Your task to perform on an android device: turn off javascript in the chrome app Image 0: 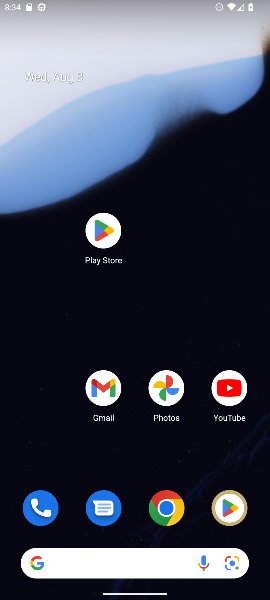
Step 0: drag from (124, 541) to (107, 82)
Your task to perform on an android device: turn off javascript in the chrome app Image 1: 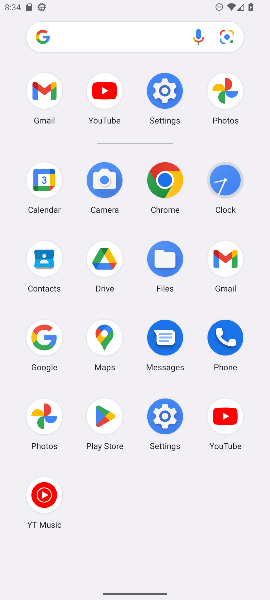
Step 1: click (169, 189)
Your task to perform on an android device: turn off javascript in the chrome app Image 2: 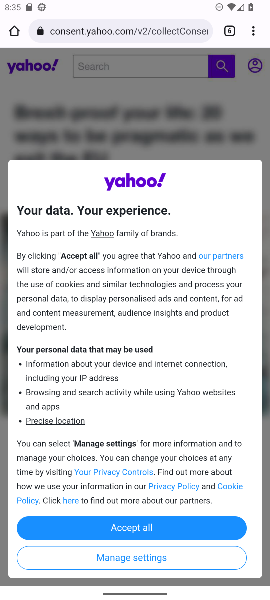
Step 2: press home button
Your task to perform on an android device: turn off javascript in the chrome app Image 3: 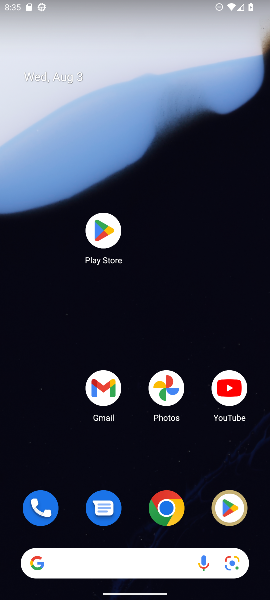
Step 3: drag from (128, 530) to (263, 393)
Your task to perform on an android device: turn off javascript in the chrome app Image 4: 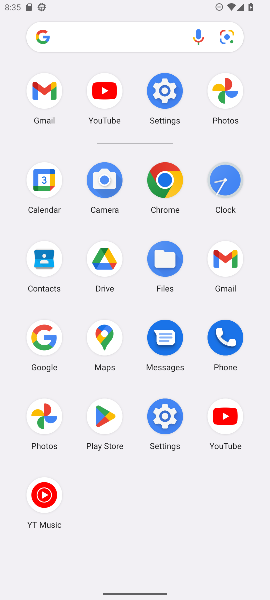
Step 4: click (151, 192)
Your task to perform on an android device: turn off javascript in the chrome app Image 5: 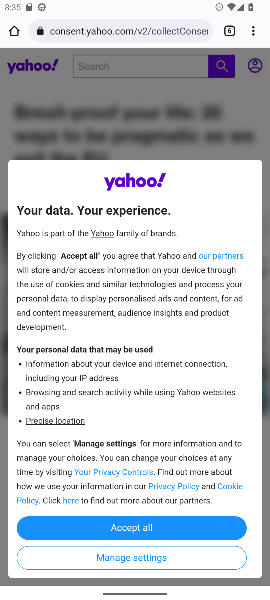
Step 5: drag from (250, 33) to (135, 386)
Your task to perform on an android device: turn off javascript in the chrome app Image 6: 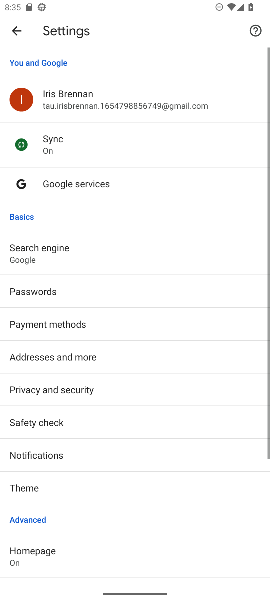
Step 6: drag from (87, 503) to (94, 199)
Your task to perform on an android device: turn off javascript in the chrome app Image 7: 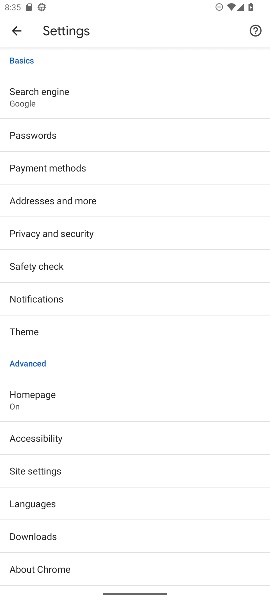
Step 7: click (43, 477)
Your task to perform on an android device: turn off javascript in the chrome app Image 8: 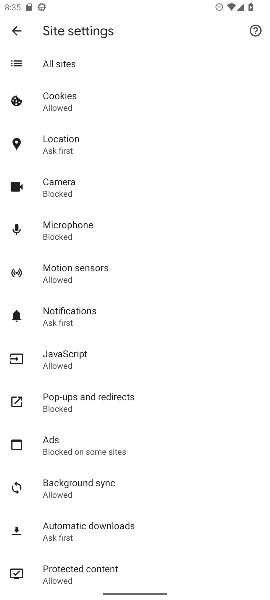
Step 8: click (75, 368)
Your task to perform on an android device: turn off javascript in the chrome app Image 9: 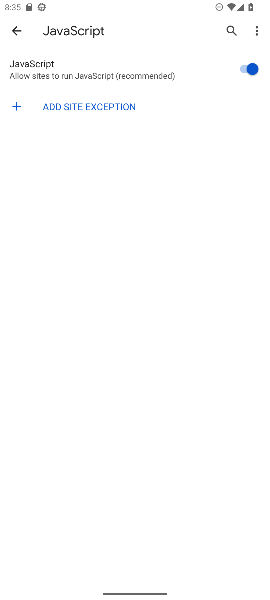
Step 9: click (240, 68)
Your task to perform on an android device: turn off javascript in the chrome app Image 10: 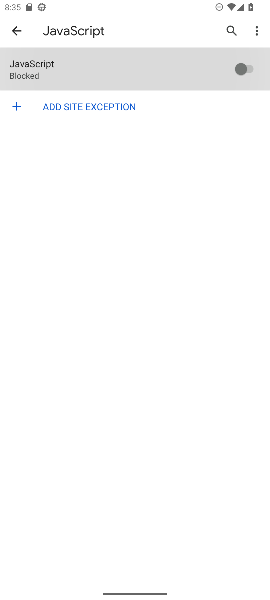
Step 10: task complete